Your task to perform on an android device: What's the weather going to be this weekend? Image 0: 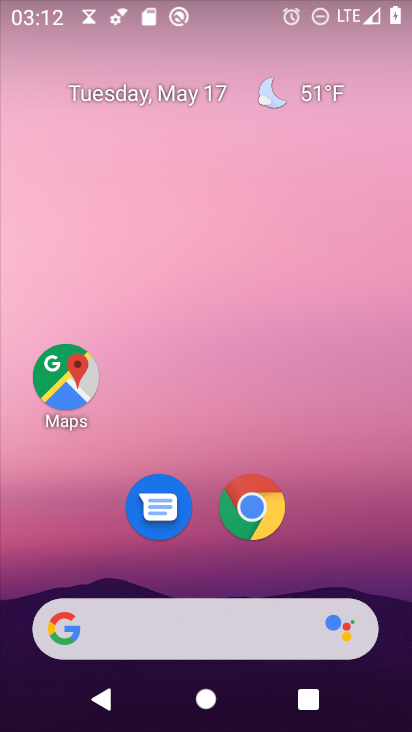
Step 0: click (185, 608)
Your task to perform on an android device: What's the weather going to be this weekend? Image 1: 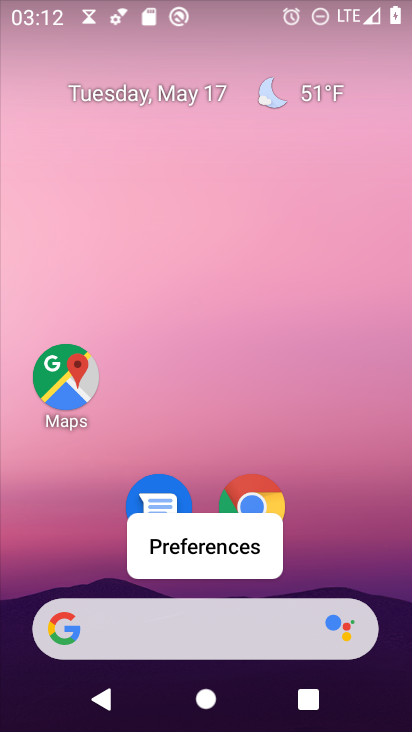
Step 1: click (160, 616)
Your task to perform on an android device: What's the weather going to be this weekend? Image 2: 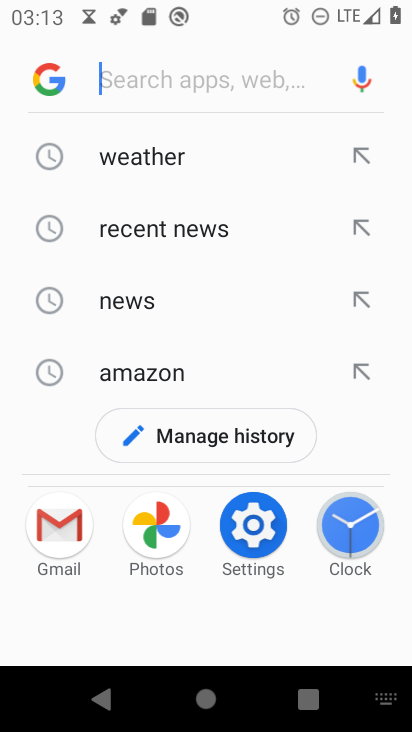
Step 2: type "what's the weather going to be this weekend"
Your task to perform on an android device: What's the weather going to be this weekend? Image 3: 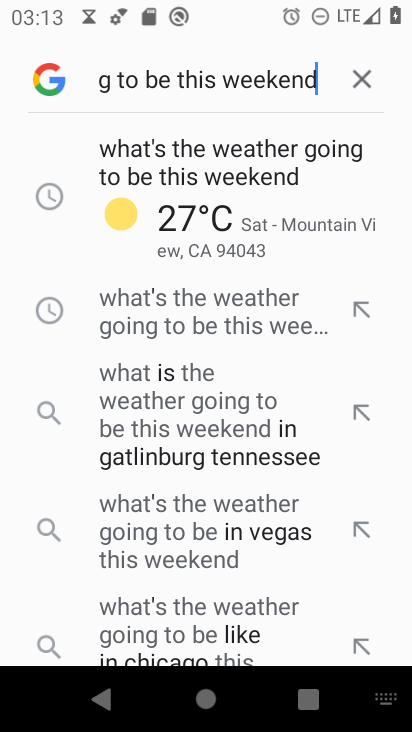
Step 3: click (237, 190)
Your task to perform on an android device: What's the weather going to be this weekend? Image 4: 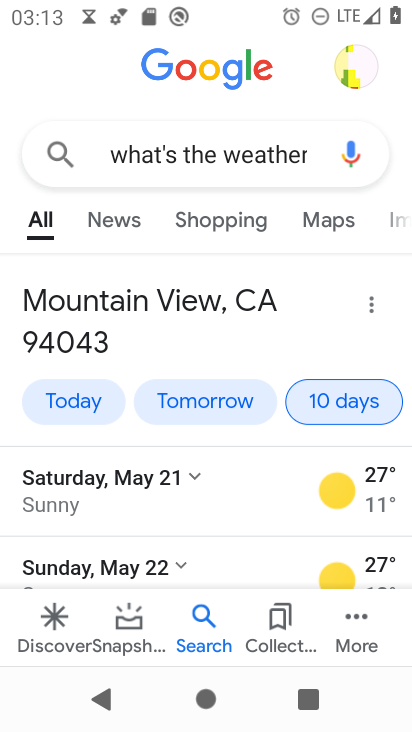
Step 4: task complete